Your task to perform on an android device: Go to display settings Image 0: 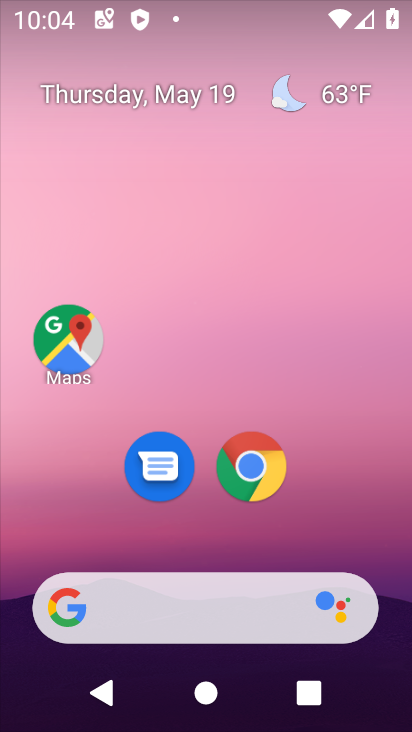
Step 0: drag from (394, 635) to (248, 23)
Your task to perform on an android device: Go to display settings Image 1: 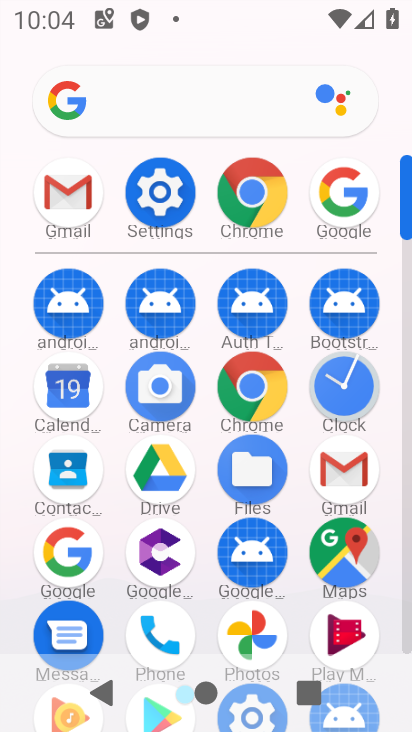
Step 1: click (150, 157)
Your task to perform on an android device: Go to display settings Image 2: 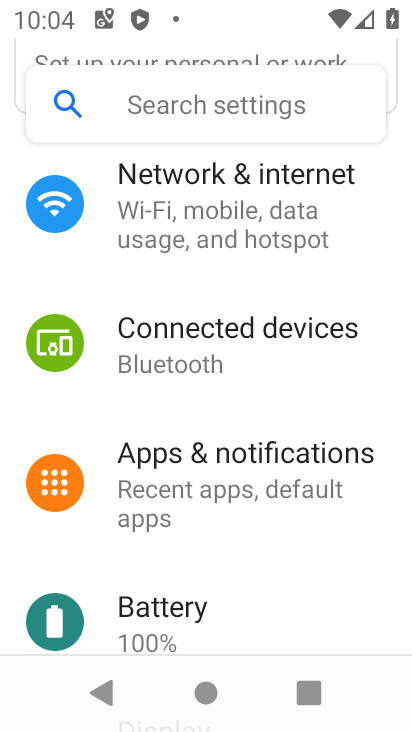
Step 2: drag from (217, 604) to (225, 171)
Your task to perform on an android device: Go to display settings Image 3: 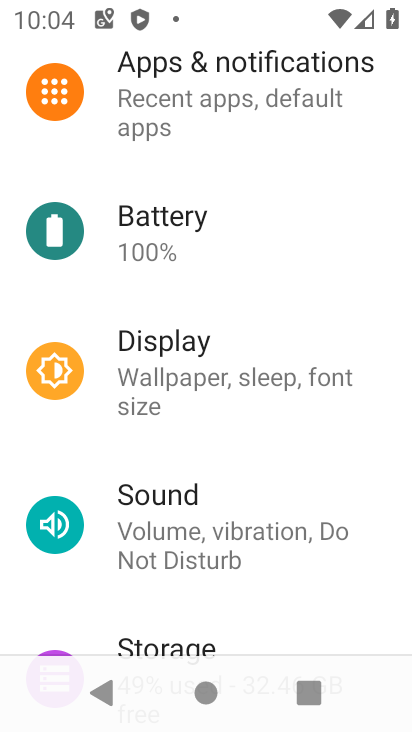
Step 3: click (166, 351)
Your task to perform on an android device: Go to display settings Image 4: 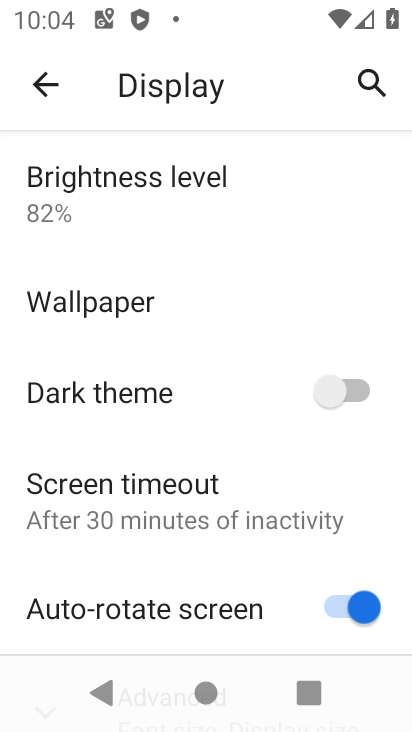
Step 4: task complete